Your task to perform on an android device: turn on the 24-hour format for clock Image 0: 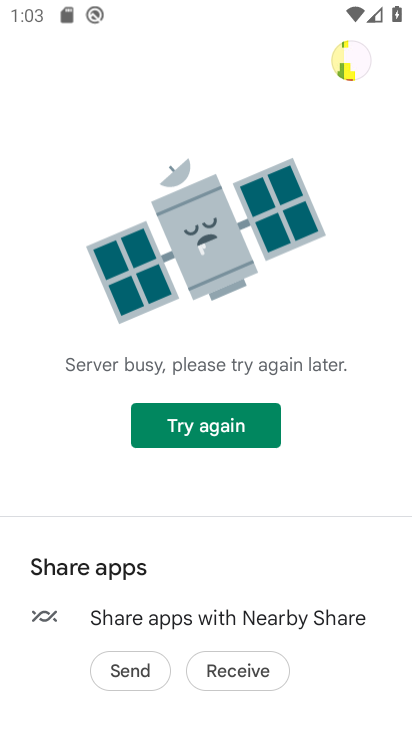
Step 0: press home button
Your task to perform on an android device: turn on the 24-hour format for clock Image 1: 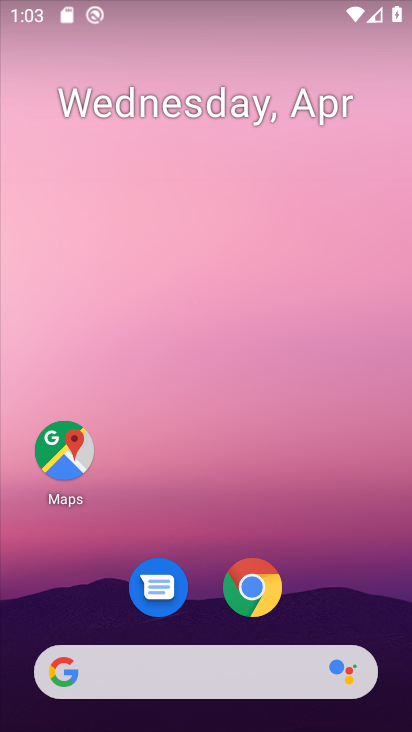
Step 1: drag from (369, 625) to (407, 132)
Your task to perform on an android device: turn on the 24-hour format for clock Image 2: 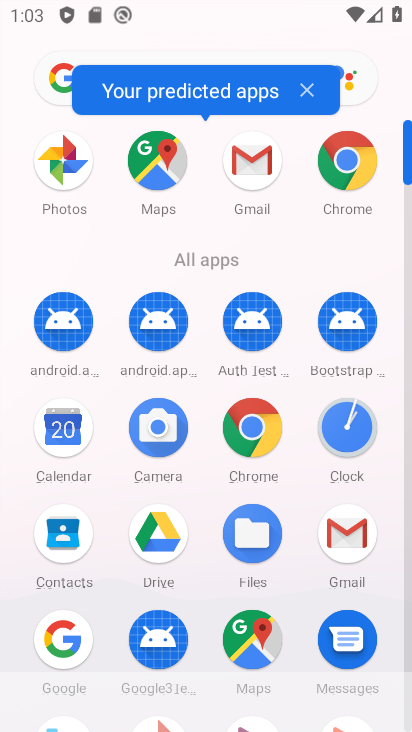
Step 2: drag from (405, 582) to (408, 537)
Your task to perform on an android device: turn on the 24-hour format for clock Image 3: 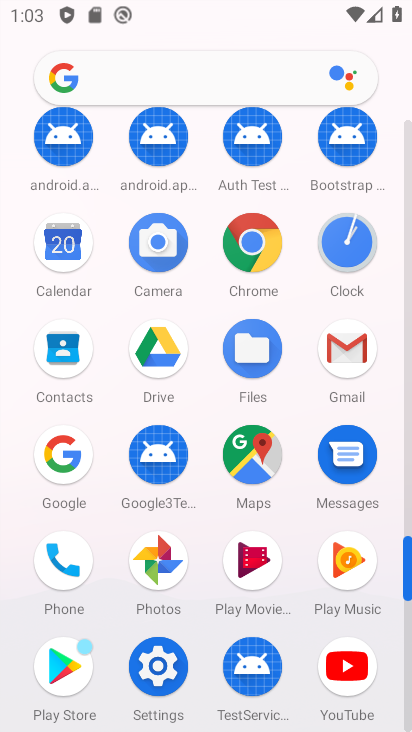
Step 3: click (344, 254)
Your task to perform on an android device: turn on the 24-hour format for clock Image 4: 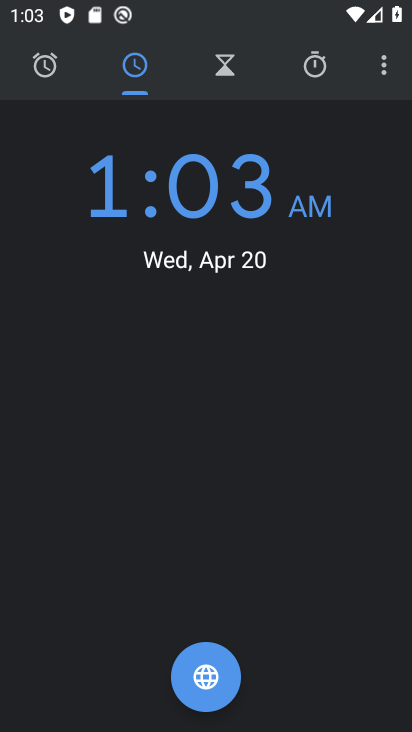
Step 4: click (390, 69)
Your task to perform on an android device: turn on the 24-hour format for clock Image 5: 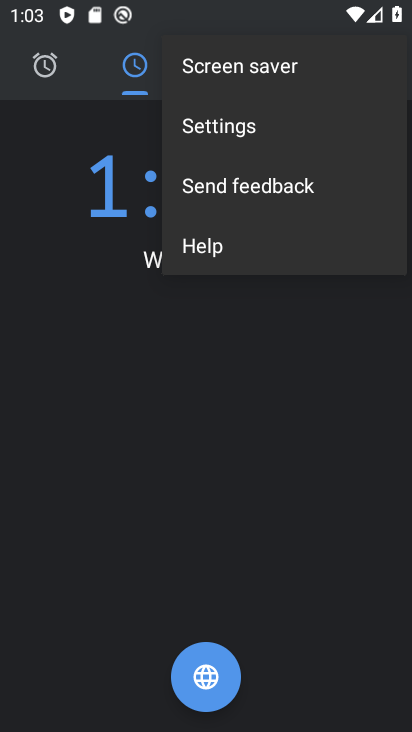
Step 5: click (235, 133)
Your task to perform on an android device: turn on the 24-hour format for clock Image 6: 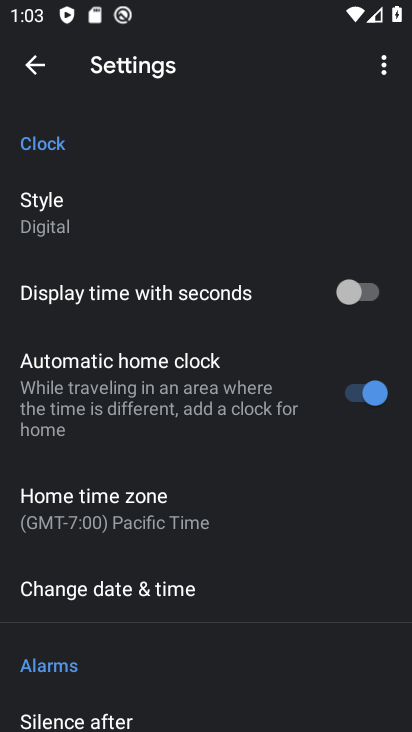
Step 6: click (102, 596)
Your task to perform on an android device: turn on the 24-hour format for clock Image 7: 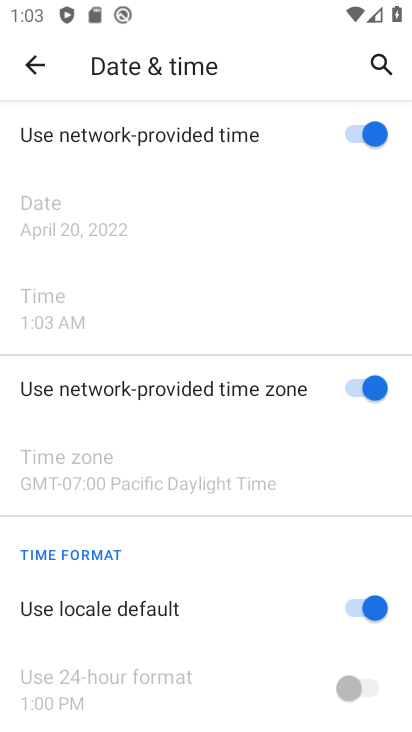
Step 7: drag from (159, 626) to (204, 415)
Your task to perform on an android device: turn on the 24-hour format for clock Image 8: 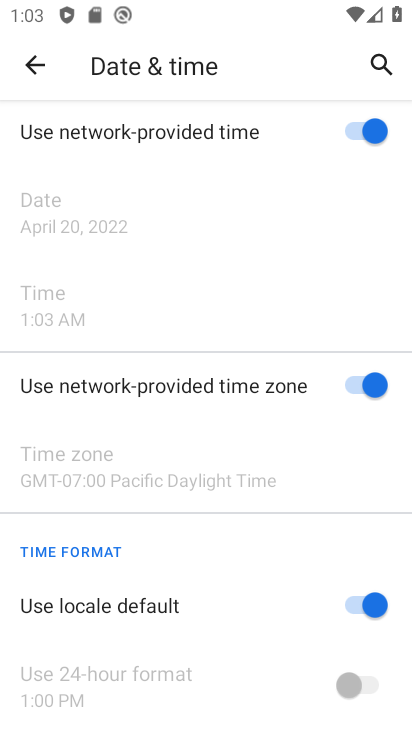
Step 8: click (369, 599)
Your task to perform on an android device: turn on the 24-hour format for clock Image 9: 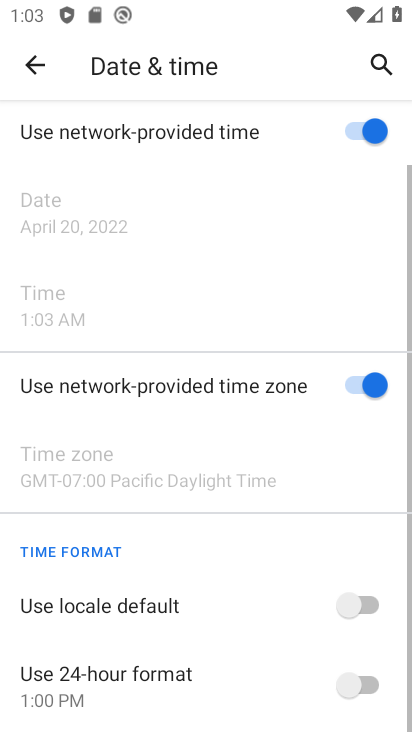
Step 9: click (353, 693)
Your task to perform on an android device: turn on the 24-hour format for clock Image 10: 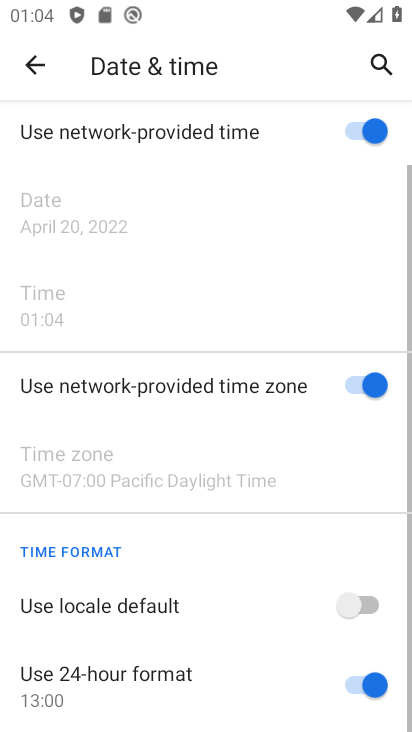
Step 10: task complete